Your task to perform on an android device: Open Chrome and go to settings Image 0: 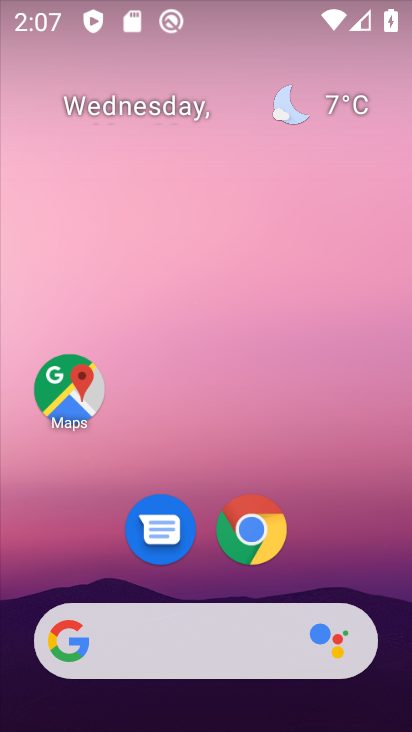
Step 0: drag from (344, 446) to (304, 111)
Your task to perform on an android device: Open Chrome and go to settings Image 1: 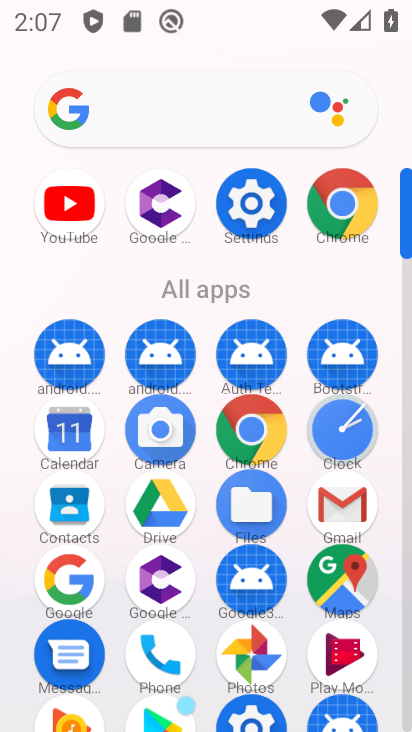
Step 1: click (360, 225)
Your task to perform on an android device: Open Chrome and go to settings Image 2: 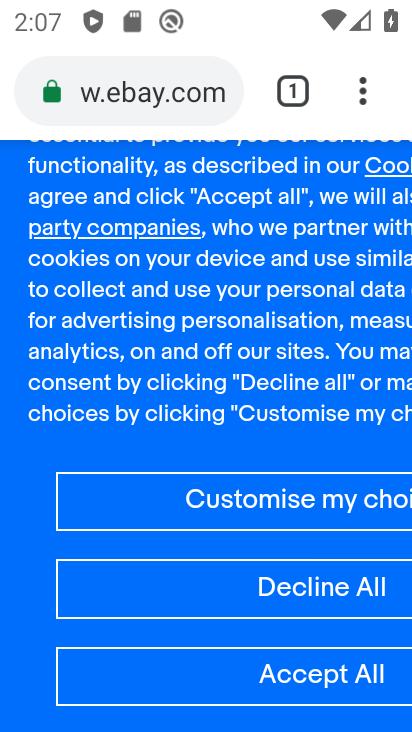
Step 2: task complete